Your task to perform on an android device: toggle javascript in the chrome app Image 0: 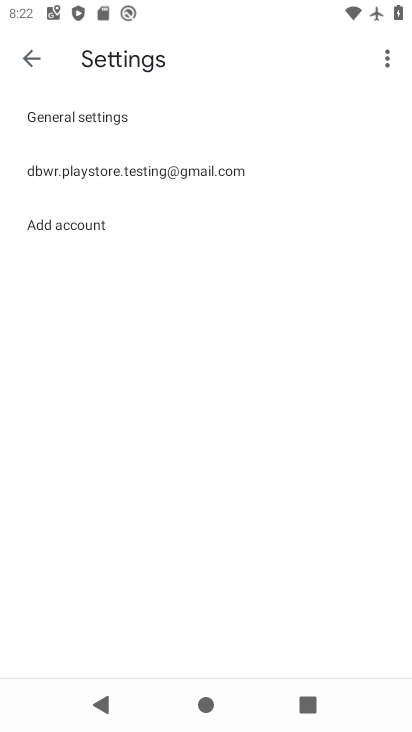
Step 0: press home button
Your task to perform on an android device: toggle javascript in the chrome app Image 1: 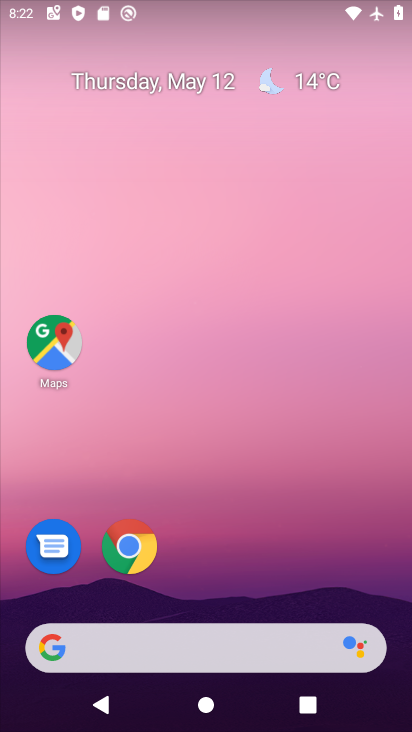
Step 1: click (132, 544)
Your task to perform on an android device: toggle javascript in the chrome app Image 2: 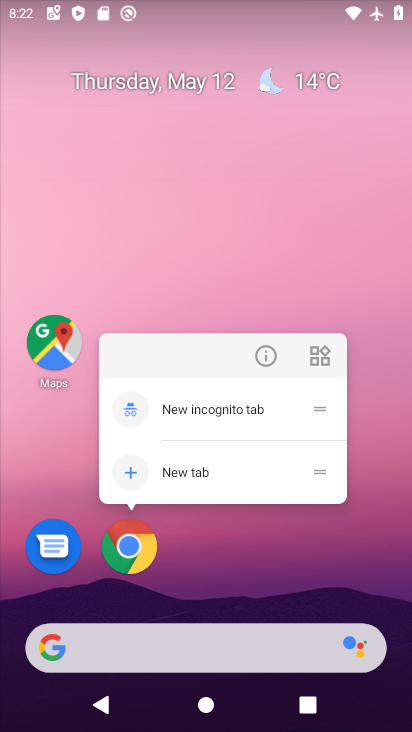
Step 2: click (137, 553)
Your task to perform on an android device: toggle javascript in the chrome app Image 3: 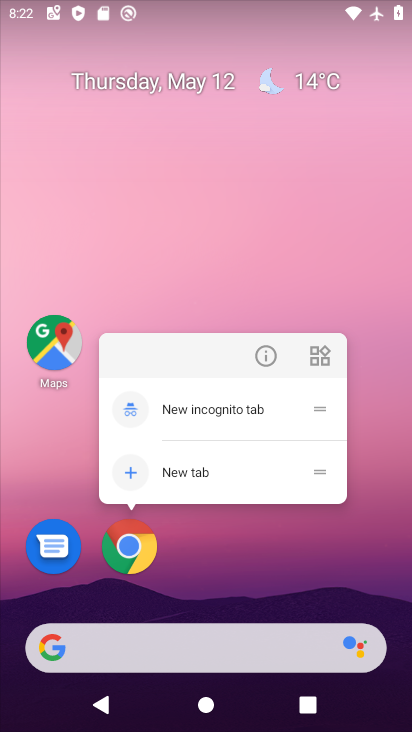
Step 3: click (130, 551)
Your task to perform on an android device: toggle javascript in the chrome app Image 4: 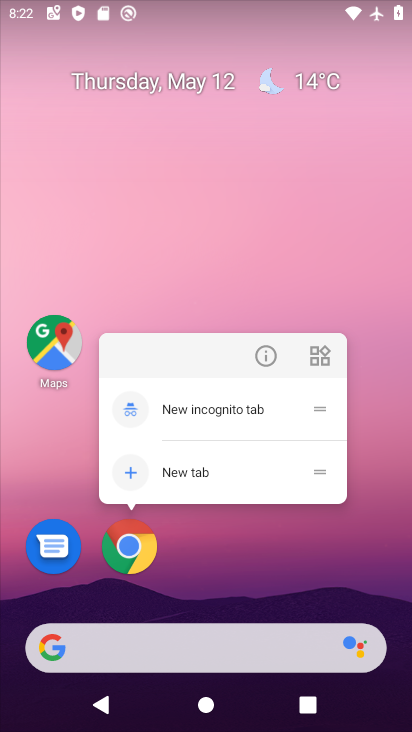
Step 4: click (130, 551)
Your task to perform on an android device: toggle javascript in the chrome app Image 5: 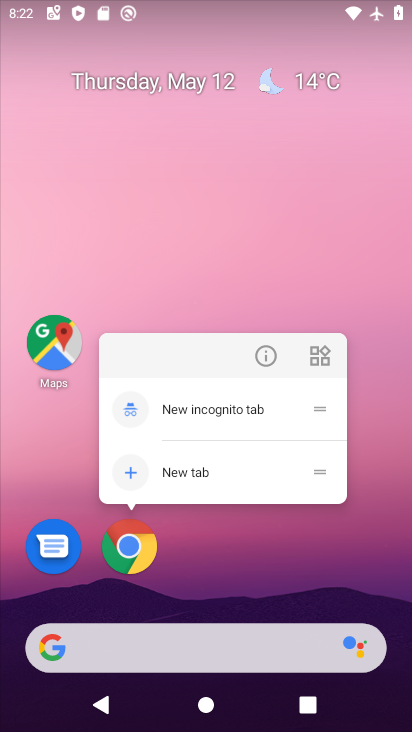
Step 5: click (127, 557)
Your task to perform on an android device: toggle javascript in the chrome app Image 6: 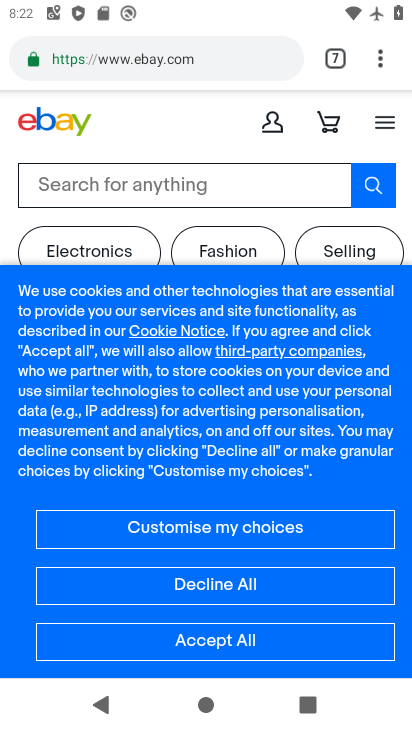
Step 6: drag from (379, 65) to (267, 563)
Your task to perform on an android device: toggle javascript in the chrome app Image 7: 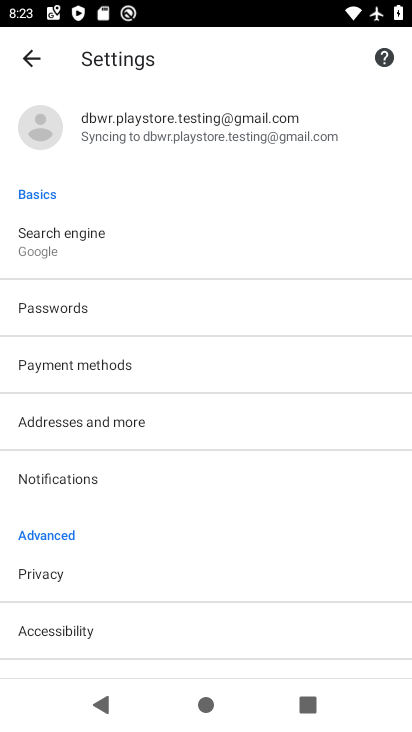
Step 7: drag from (170, 574) to (255, 335)
Your task to perform on an android device: toggle javascript in the chrome app Image 8: 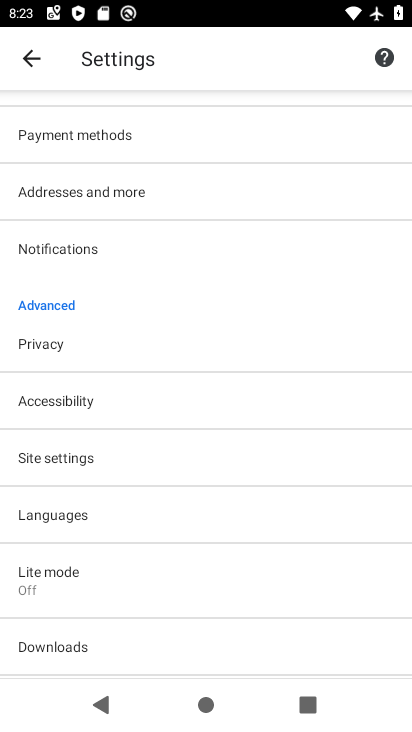
Step 8: click (99, 455)
Your task to perform on an android device: toggle javascript in the chrome app Image 9: 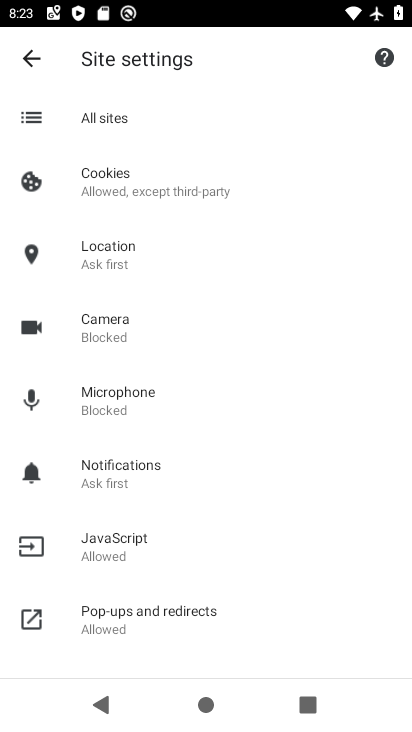
Step 9: click (134, 537)
Your task to perform on an android device: toggle javascript in the chrome app Image 10: 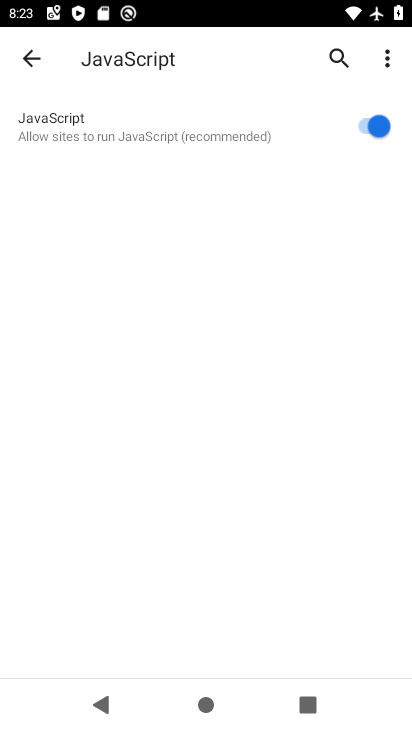
Step 10: click (368, 123)
Your task to perform on an android device: toggle javascript in the chrome app Image 11: 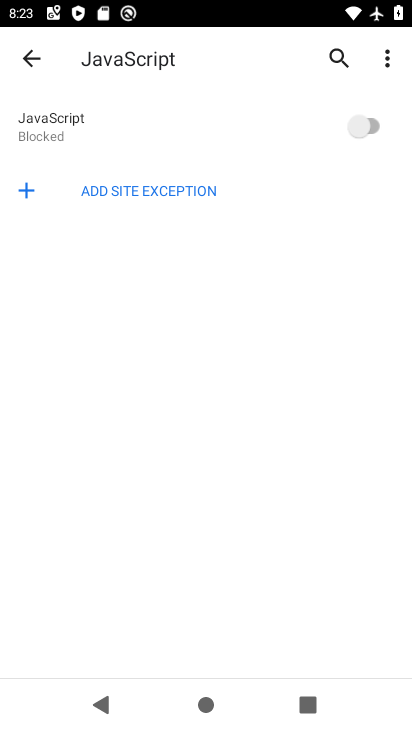
Step 11: task complete